Your task to perform on an android device: Open accessibility settings Image 0: 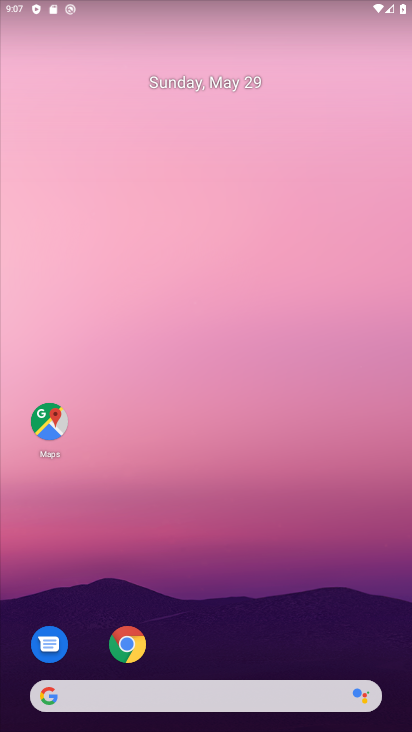
Step 0: drag from (230, 586) to (301, 68)
Your task to perform on an android device: Open accessibility settings Image 1: 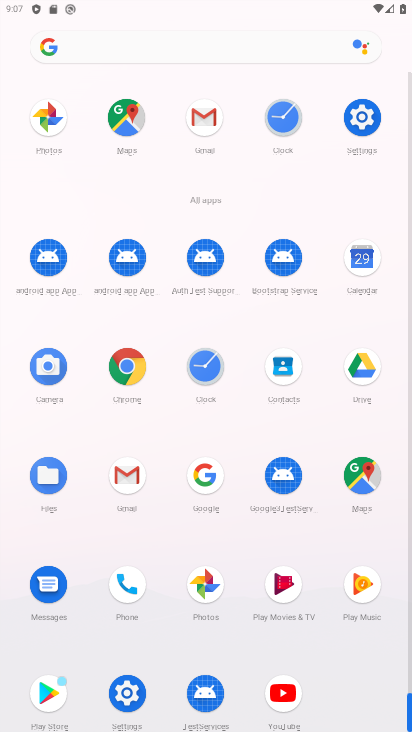
Step 1: click (125, 695)
Your task to perform on an android device: Open accessibility settings Image 2: 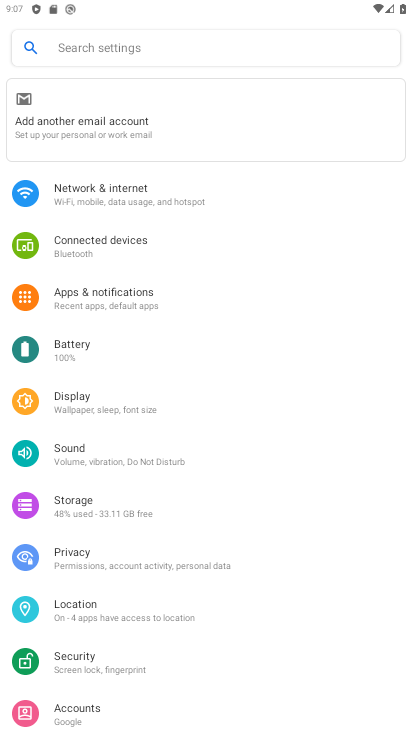
Step 2: drag from (220, 672) to (266, 202)
Your task to perform on an android device: Open accessibility settings Image 3: 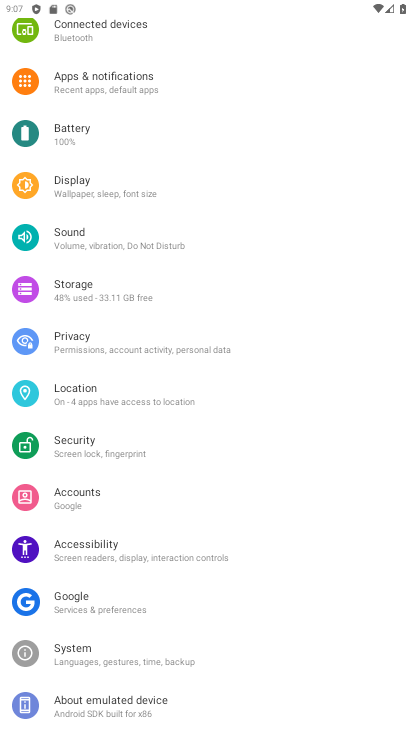
Step 3: drag from (182, 571) to (268, 264)
Your task to perform on an android device: Open accessibility settings Image 4: 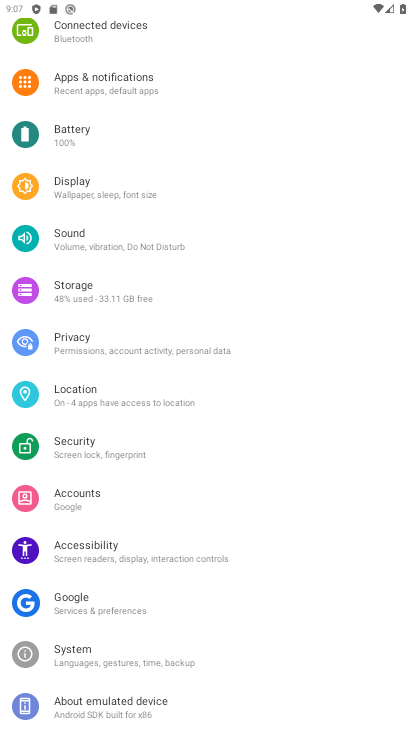
Step 4: click (106, 558)
Your task to perform on an android device: Open accessibility settings Image 5: 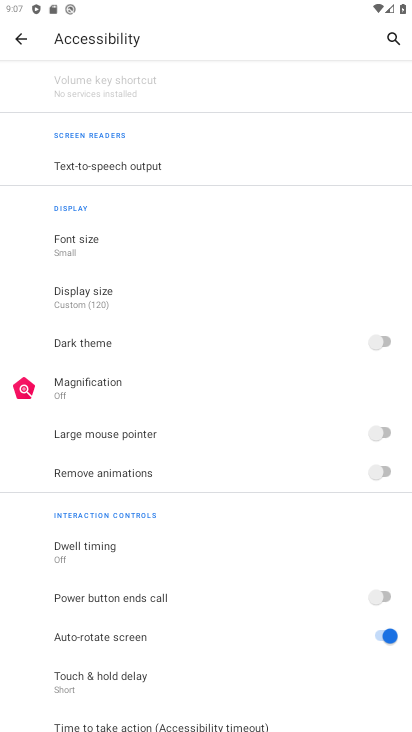
Step 5: task complete